Your task to perform on an android device: open the mobile data screen to see how much data has been used Image 0: 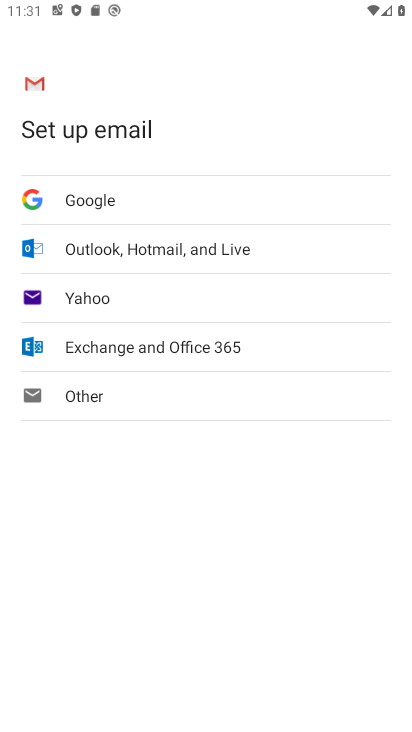
Step 0: press home button
Your task to perform on an android device: open the mobile data screen to see how much data has been used Image 1: 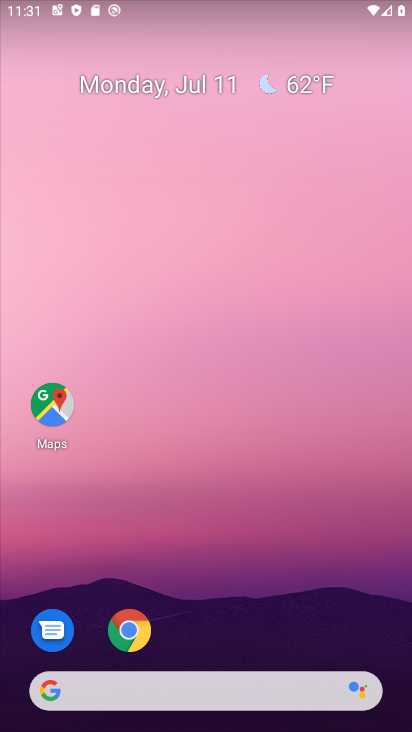
Step 1: drag from (177, 626) to (253, 120)
Your task to perform on an android device: open the mobile data screen to see how much data has been used Image 2: 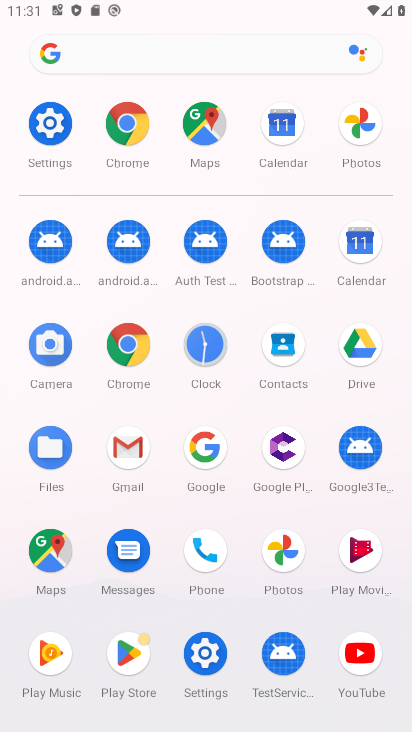
Step 2: click (45, 119)
Your task to perform on an android device: open the mobile data screen to see how much data has been used Image 3: 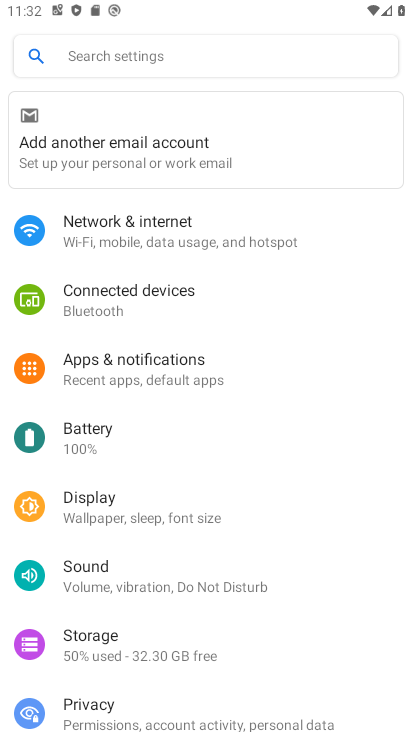
Step 3: click (135, 229)
Your task to perform on an android device: open the mobile data screen to see how much data has been used Image 4: 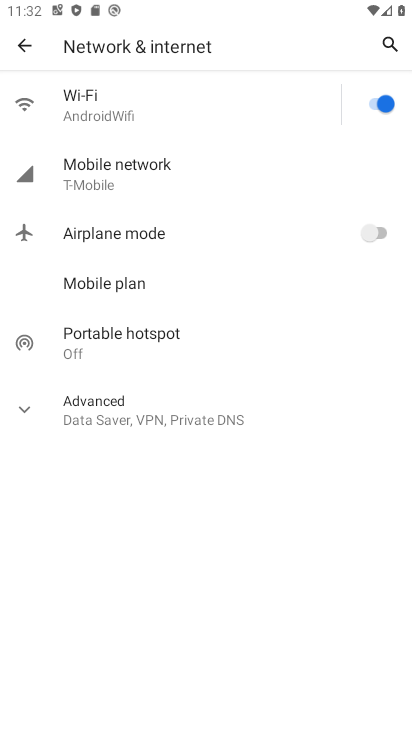
Step 4: click (157, 169)
Your task to perform on an android device: open the mobile data screen to see how much data has been used Image 5: 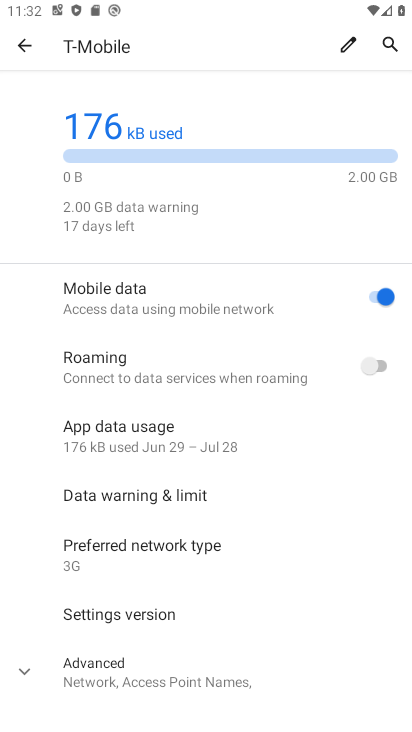
Step 5: task complete